Your task to perform on an android device: Go to CNN.com Image 0: 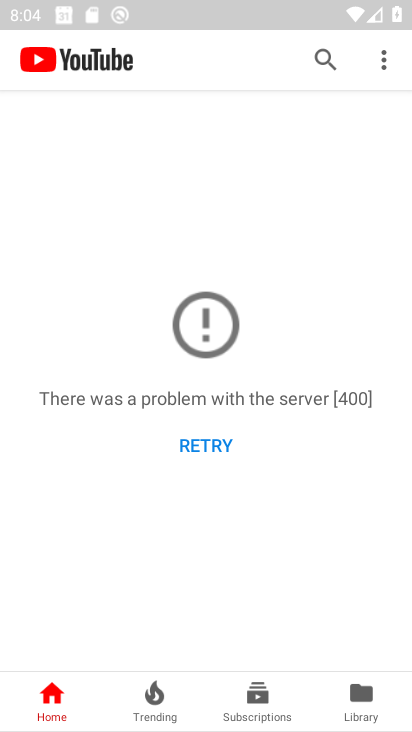
Step 0: press home button
Your task to perform on an android device: Go to CNN.com Image 1: 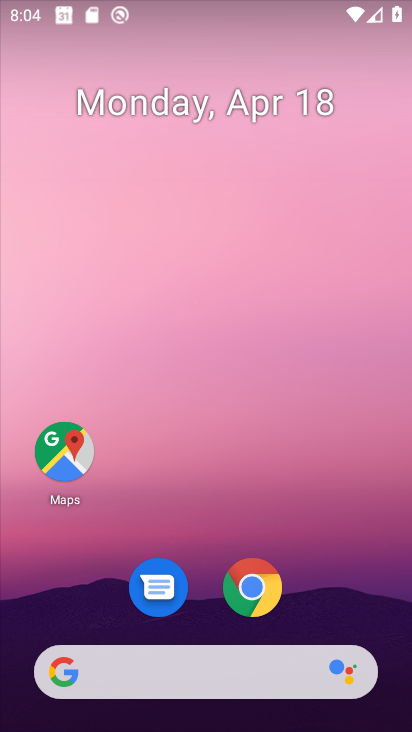
Step 1: click (259, 589)
Your task to perform on an android device: Go to CNN.com Image 2: 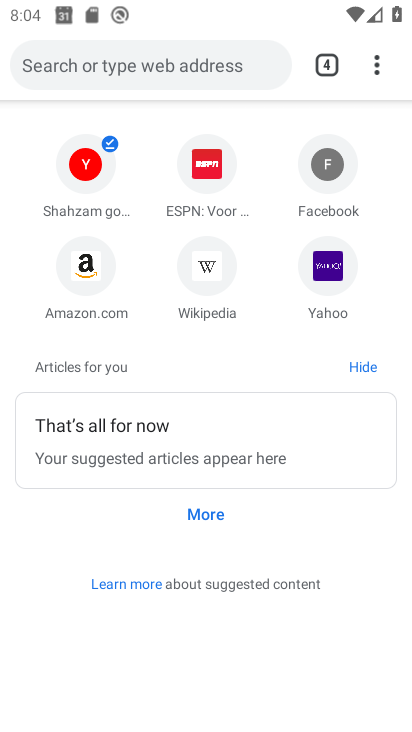
Step 2: click (150, 52)
Your task to perform on an android device: Go to CNN.com Image 3: 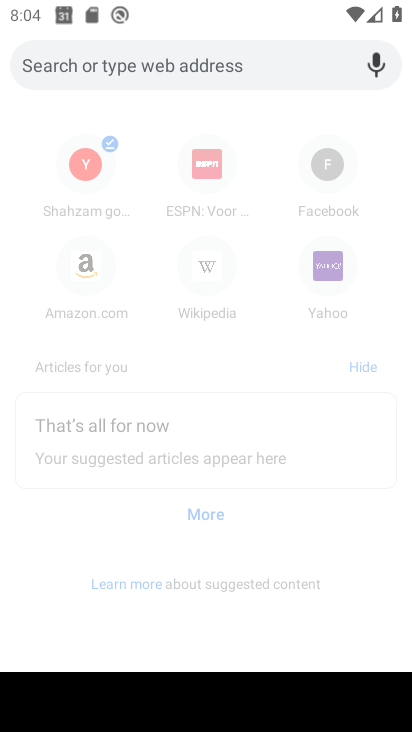
Step 3: type "cnn.com"
Your task to perform on an android device: Go to CNN.com Image 4: 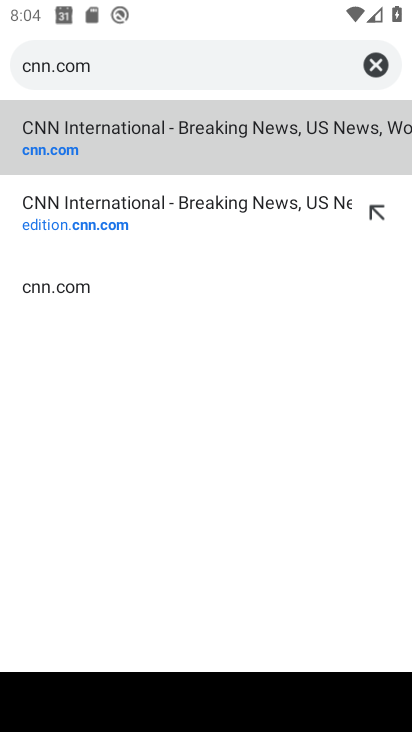
Step 4: click (147, 197)
Your task to perform on an android device: Go to CNN.com Image 5: 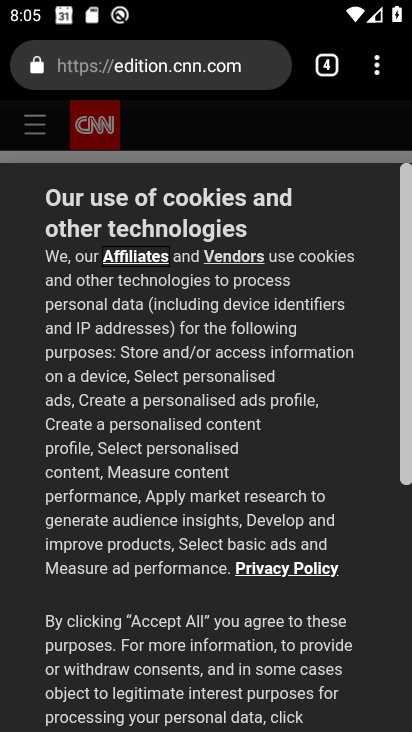
Step 5: task complete